Your task to perform on an android device: allow notifications from all sites in the chrome app Image 0: 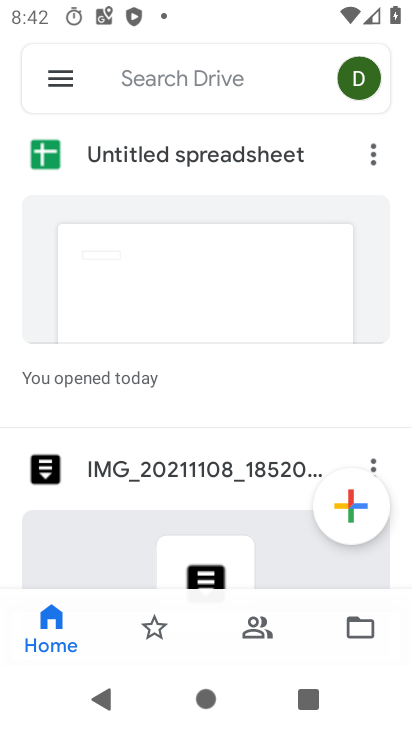
Step 0: press home button
Your task to perform on an android device: allow notifications from all sites in the chrome app Image 1: 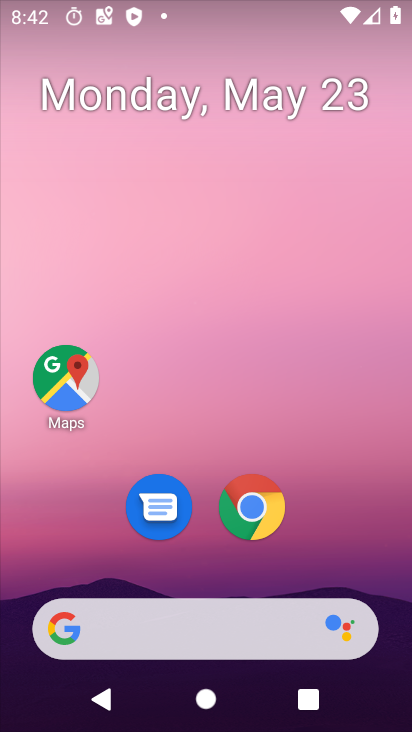
Step 1: drag from (388, 527) to (334, 89)
Your task to perform on an android device: allow notifications from all sites in the chrome app Image 2: 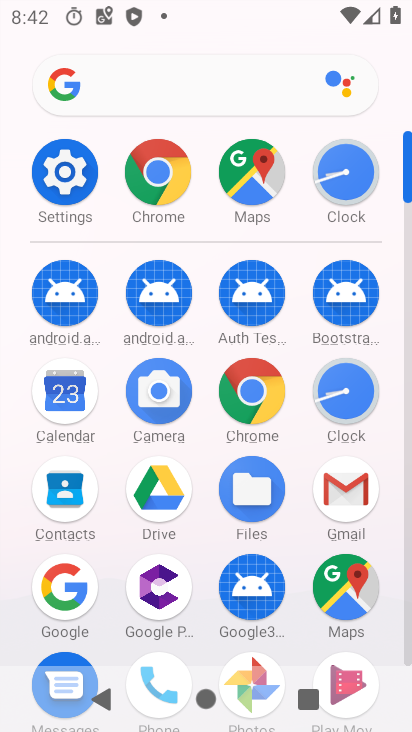
Step 2: click (164, 174)
Your task to perform on an android device: allow notifications from all sites in the chrome app Image 3: 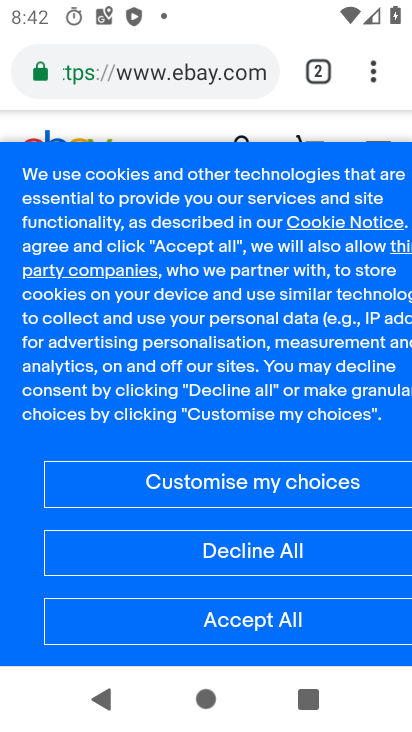
Step 3: drag from (376, 81) to (187, 488)
Your task to perform on an android device: allow notifications from all sites in the chrome app Image 4: 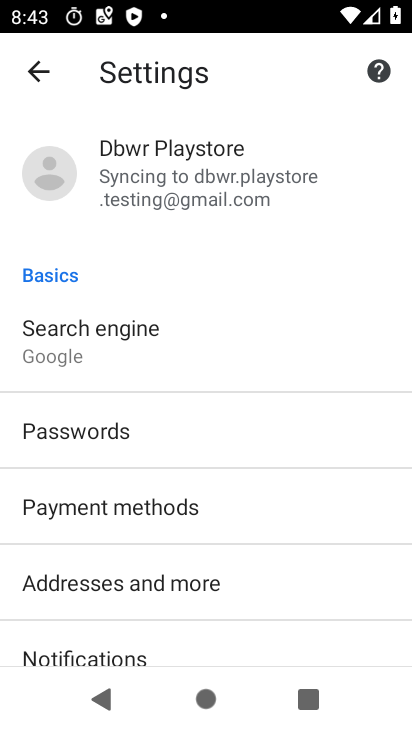
Step 4: drag from (134, 611) to (117, 222)
Your task to perform on an android device: allow notifications from all sites in the chrome app Image 5: 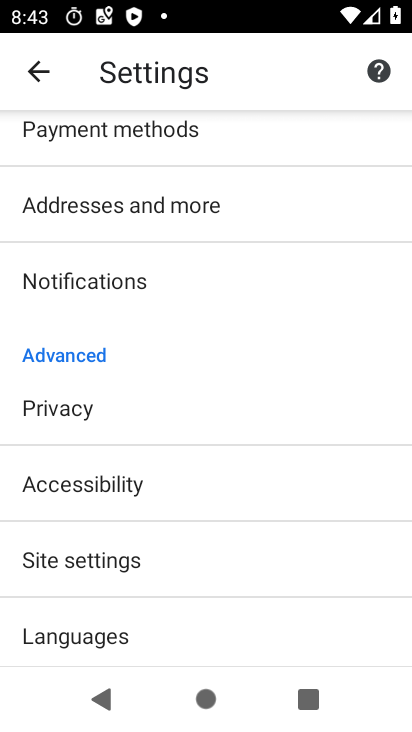
Step 5: click (102, 550)
Your task to perform on an android device: allow notifications from all sites in the chrome app Image 6: 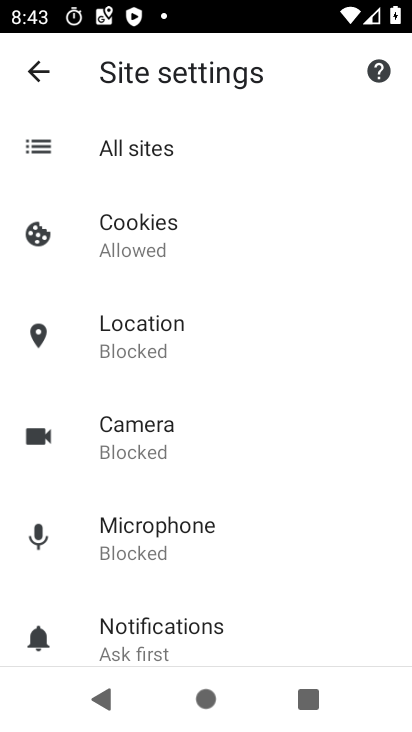
Step 6: drag from (191, 515) to (209, 120)
Your task to perform on an android device: allow notifications from all sites in the chrome app Image 7: 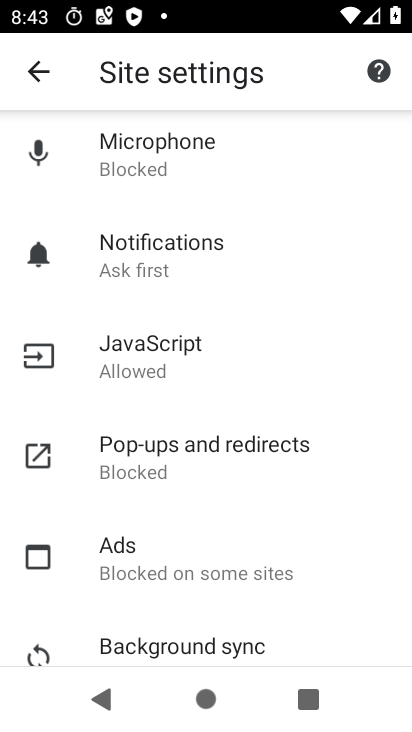
Step 7: click (174, 249)
Your task to perform on an android device: allow notifications from all sites in the chrome app Image 8: 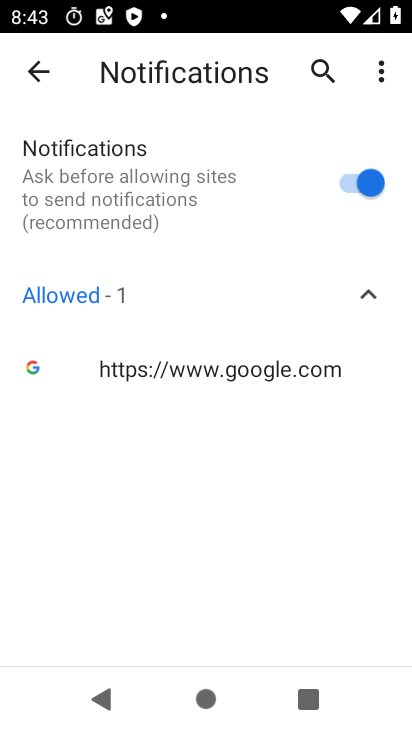
Step 8: task complete